Your task to perform on an android device: toggle improve location accuracy Image 0: 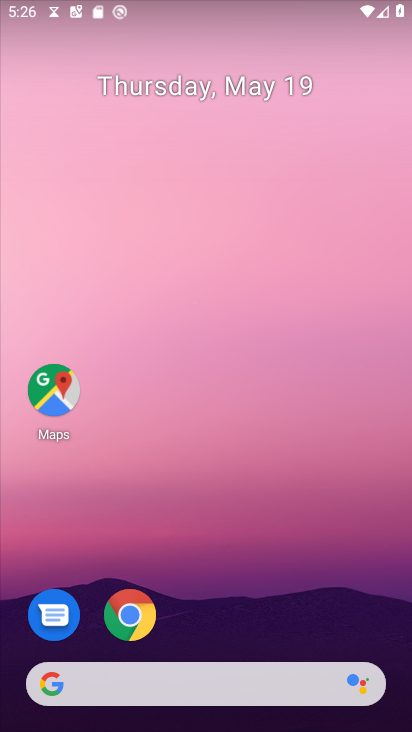
Step 0: drag from (271, 594) to (239, 10)
Your task to perform on an android device: toggle improve location accuracy Image 1: 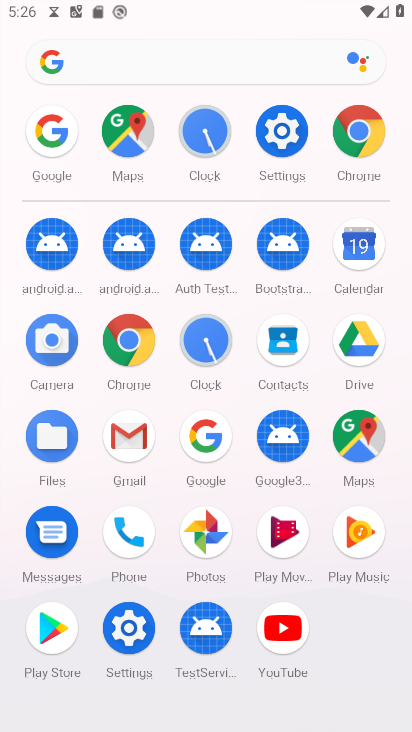
Step 1: click (278, 142)
Your task to perform on an android device: toggle improve location accuracy Image 2: 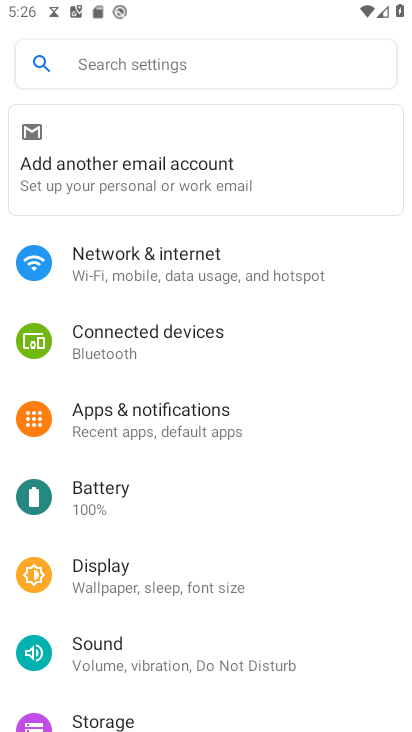
Step 2: drag from (164, 653) to (211, 188)
Your task to perform on an android device: toggle improve location accuracy Image 3: 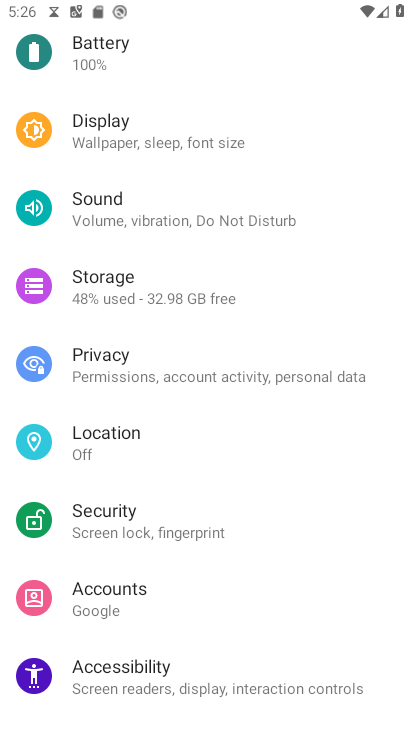
Step 3: click (157, 435)
Your task to perform on an android device: toggle improve location accuracy Image 4: 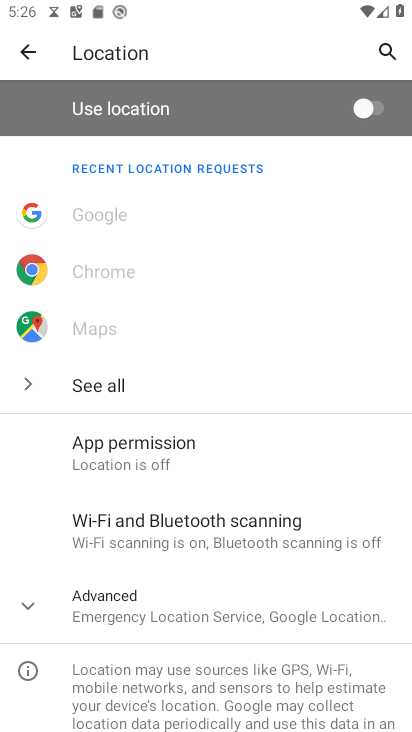
Step 4: click (224, 608)
Your task to perform on an android device: toggle improve location accuracy Image 5: 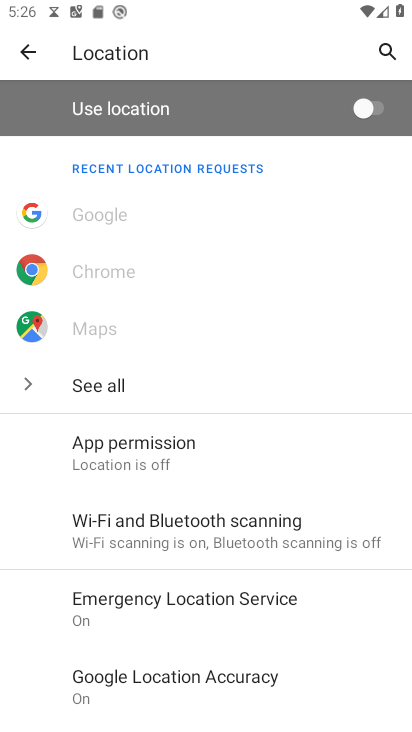
Step 5: click (238, 669)
Your task to perform on an android device: toggle improve location accuracy Image 6: 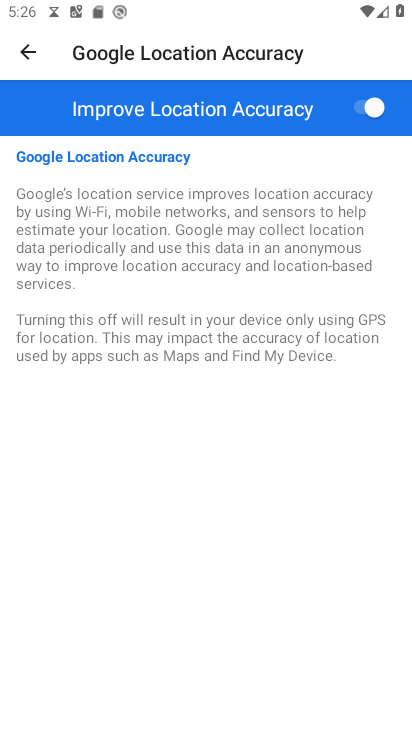
Step 6: click (380, 104)
Your task to perform on an android device: toggle improve location accuracy Image 7: 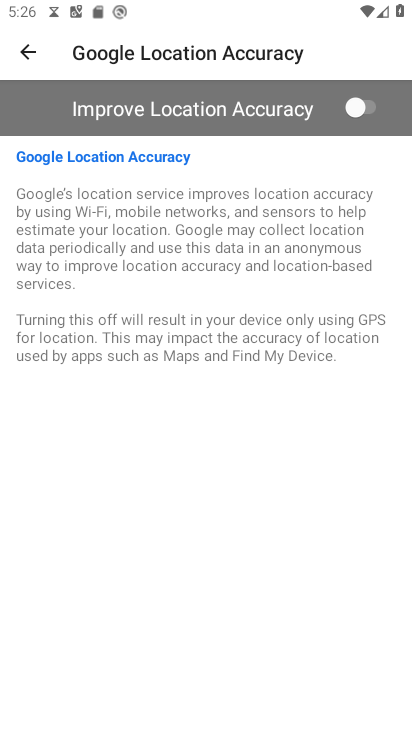
Step 7: task complete